Your task to perform on an android device: delete browsing data in the chrome app Image 0: 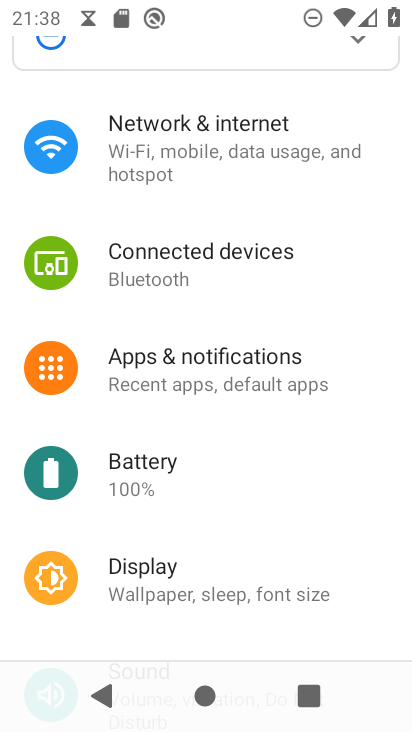
Step 0: press home button
Your task to perform on an android device: delete browsing data in the chrome app Image 1: 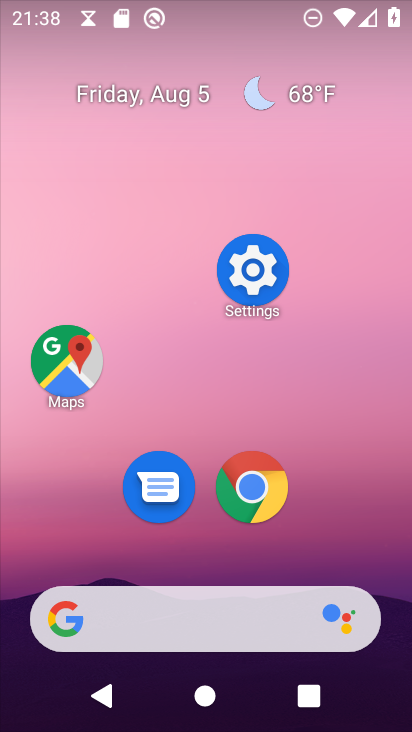
Step 1: click (256, 489)
Your task to perform on an android device: delete browsing data in the chrome app Image 2: 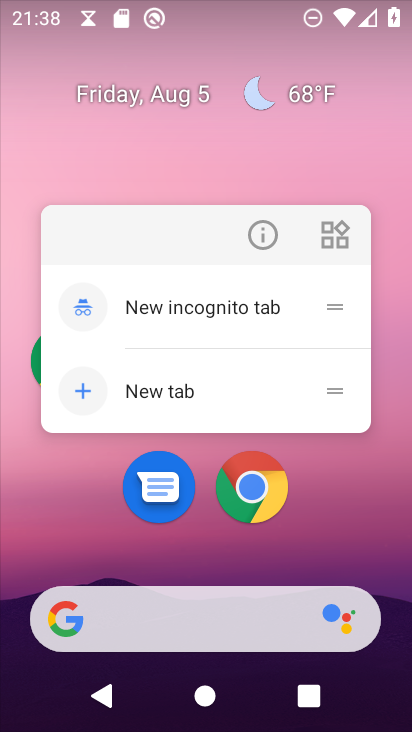
Step 2: click (251, 491)
Your task to perform on an android device: delete browsing data in the chrome app Image 3: 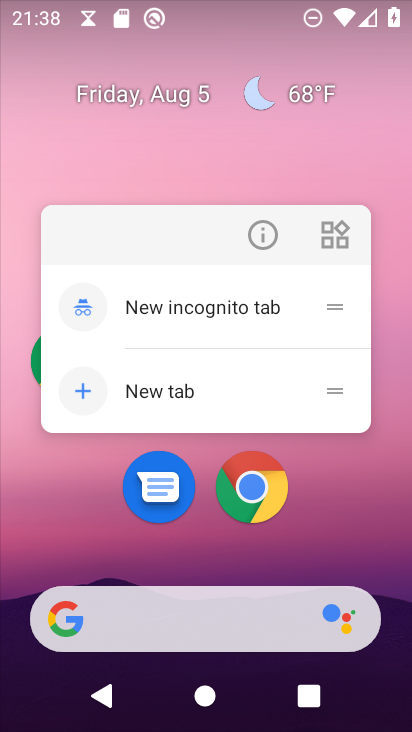
Step 3: click (251, 496)
Your task to perform on an android device: delete browsing data in the chrome app Image 4: 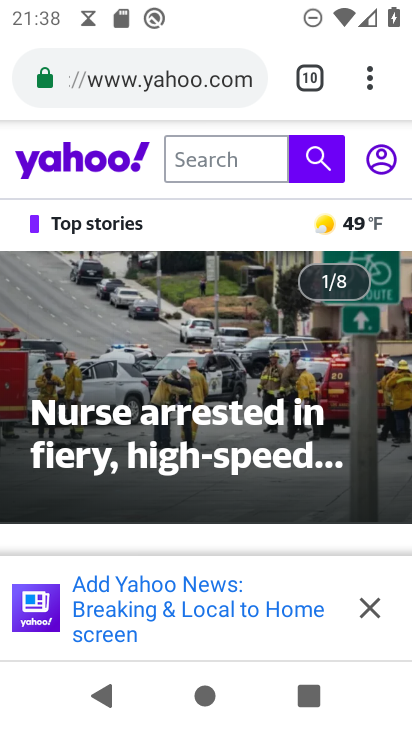
Step 4: drag from (372, 76) to (162, 549)
Your task to perform on an android device: delete browsing data in the chrome app Image 5: 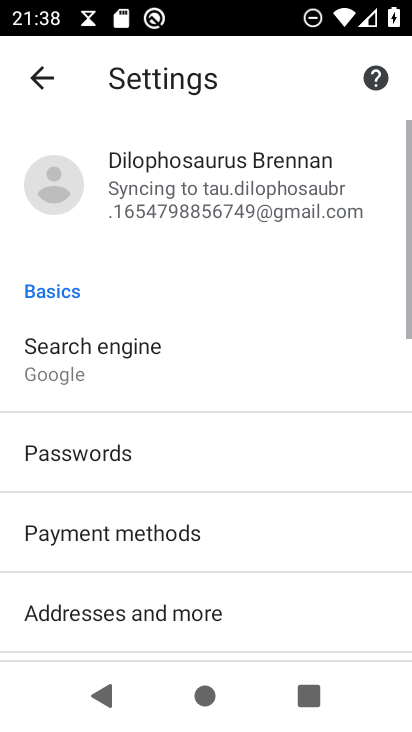
Step 5: drag from (229, 600) to (192, 171)
Your task to perform on an android device: delete browsing data in the chrome app Image 6: 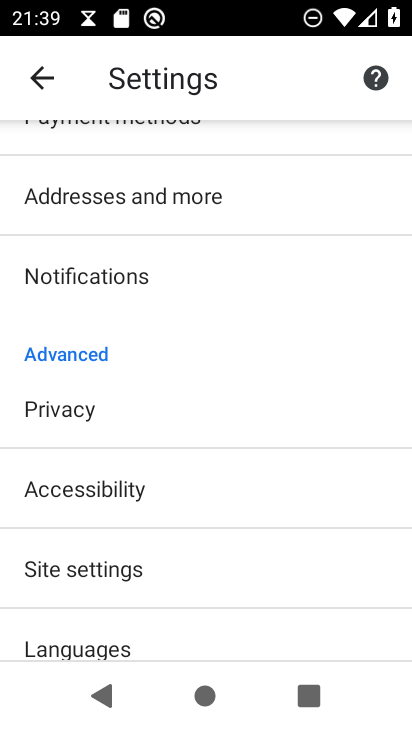
Step 6: click (75, 402)
Your task to perform on an android device: delete browsing data in the chrome app Image 7: 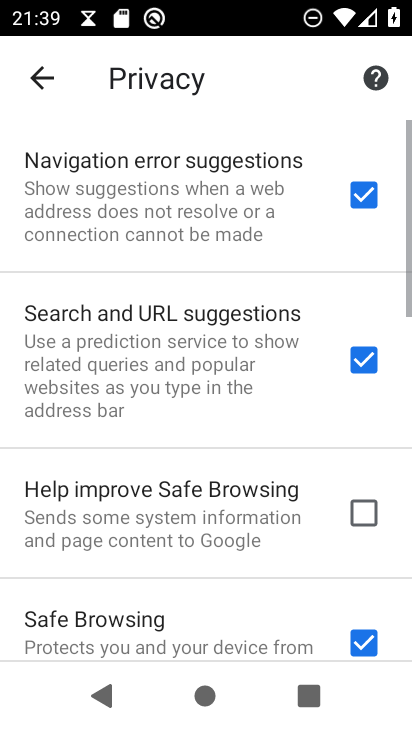
Step 7: drag from (237, 604) to (237, 93)
Your task to perform on an android device: delete browsing data in the chrome app Image 8: 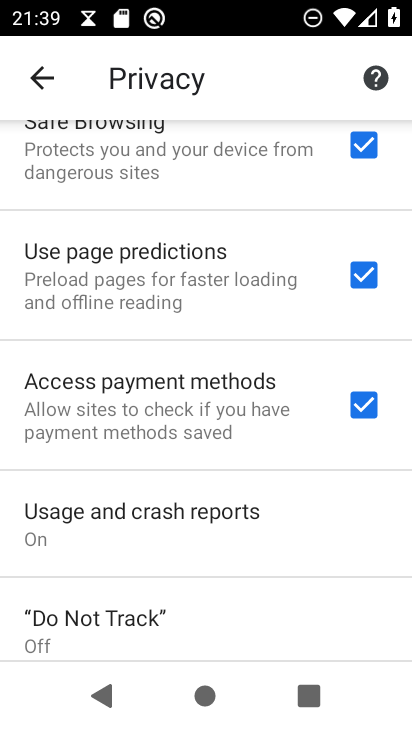
Step 8: drag from (169, 596) to (229, 80)
Your task to perform on an android device: delete browsing data in the chrome app Image 9: 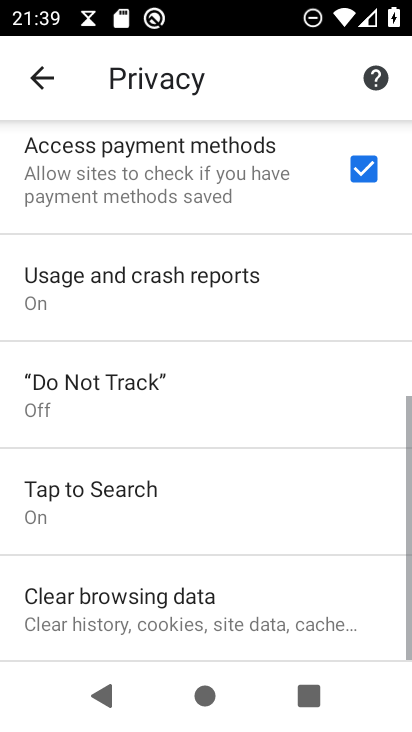
Step 9: click (105, 609)
Your task to perform on an android device: delete browsing data in the chrome app Image 10: 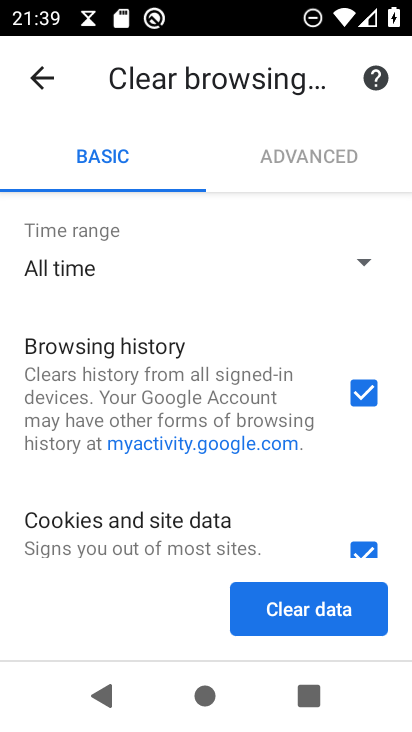
Step 10: drag from (120, 590) to (345, 145)
Your task to perform on an android device: delete browsing data in the chrome app Image 11: 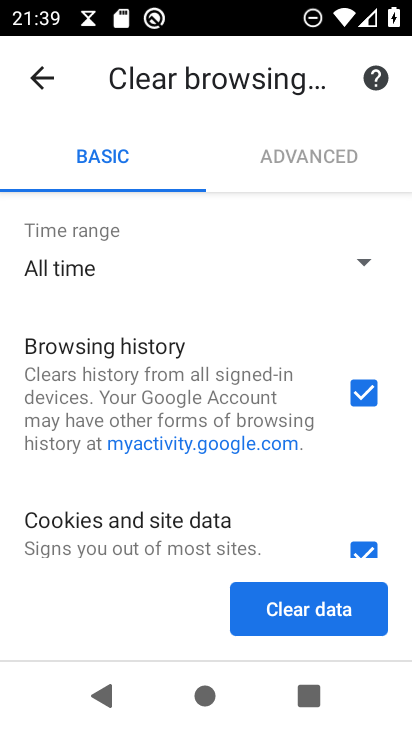
Step 11: drag from (315, 478) to (381, 130)
Your task to perform on an android device: delete browsing data in the chrome app Image 12: 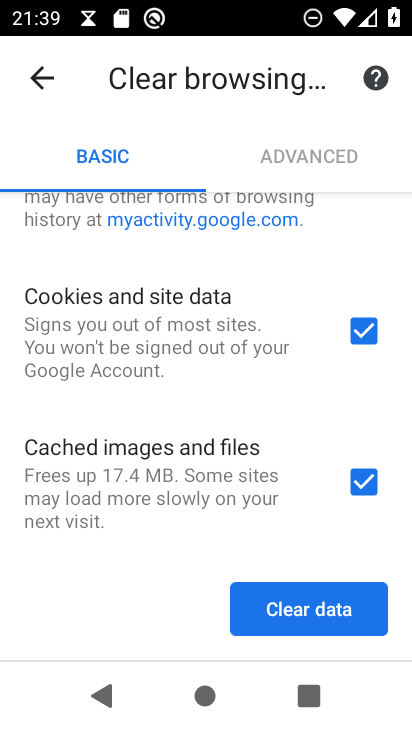
Step 12: click (330, 606)
Your task to perform on an android device: delete browsing data in the chrome app Image 13: 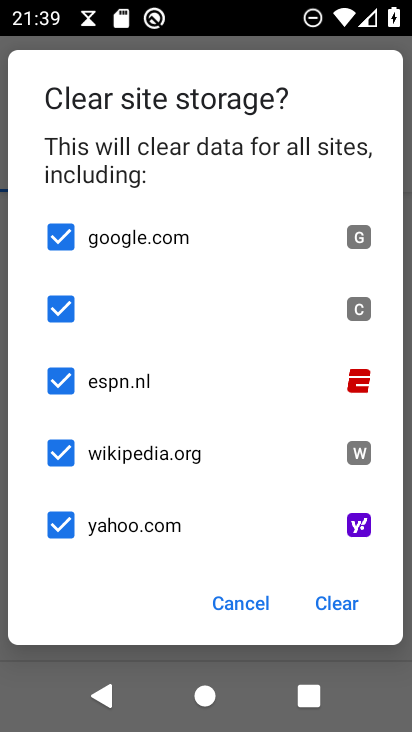
Step 13: click (332, 601)
Your task to perform on an android device: delete browsing data in the chrome app Image 14: 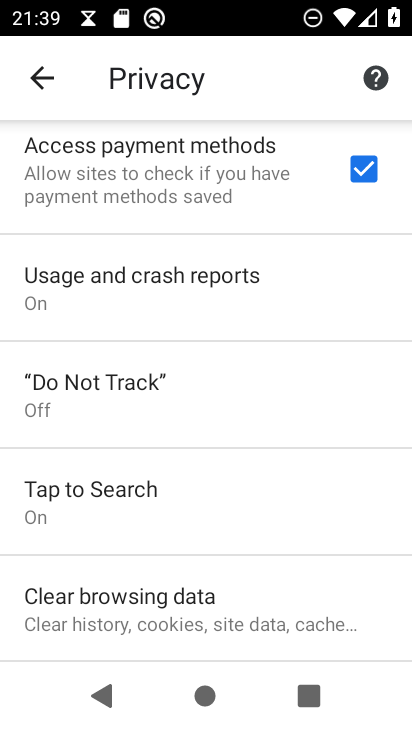
Step 14: task complete